Your task to perform on an android device: stop showing notifications on the lock screen Image 0: 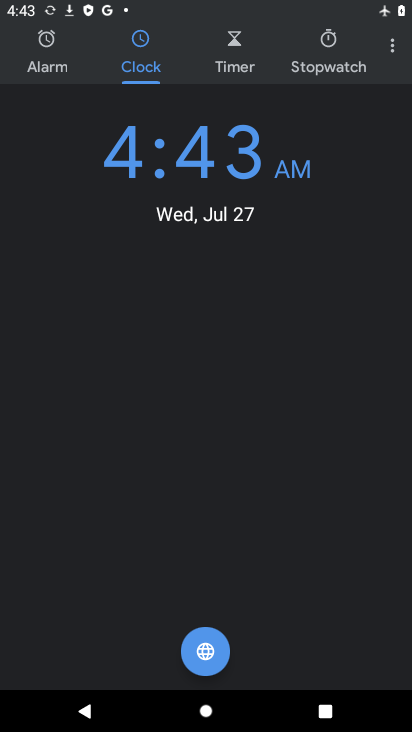
Step 0: press home button
Your task to perform on an android device: stop showing notifications on the lock screen Image 1: 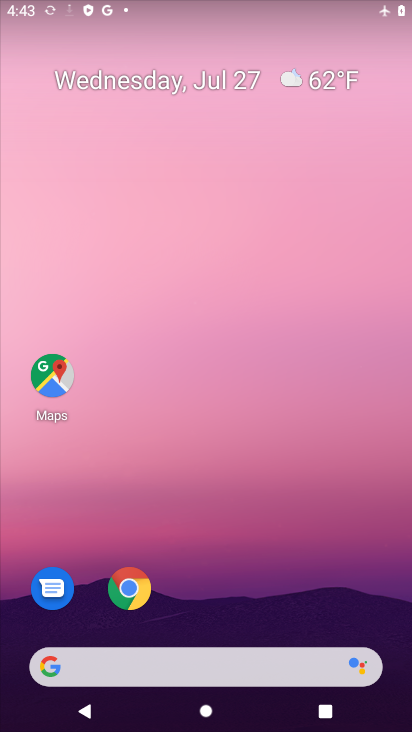
Step 1: drag from (186, 343) to (214, 163)
Your task to perform on an android device: stop showing notifications on the lock screen Image 2: 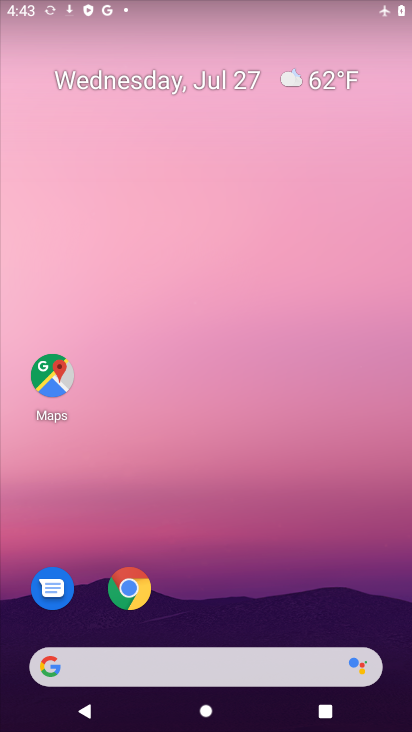
Step 2: drag from (208, 391) to (237, 150)
Your task to perform on an android device: stop showing notifications on the lock screen Image 3: 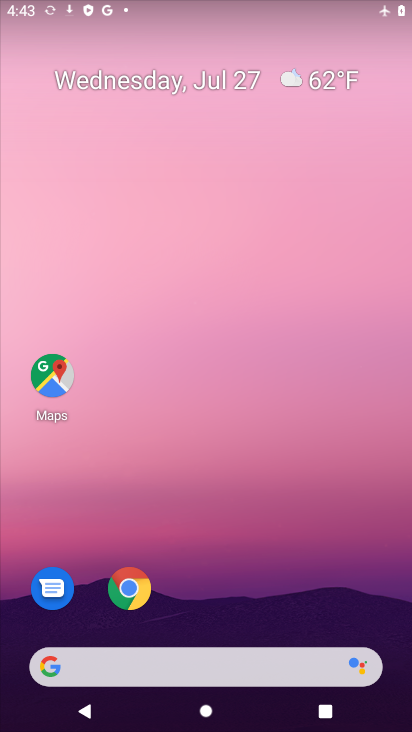
Step 3: drag from (204, 442) to (204, 85)
Your task to perform on an android device: stop showing notifications on the lock screen Image 4: 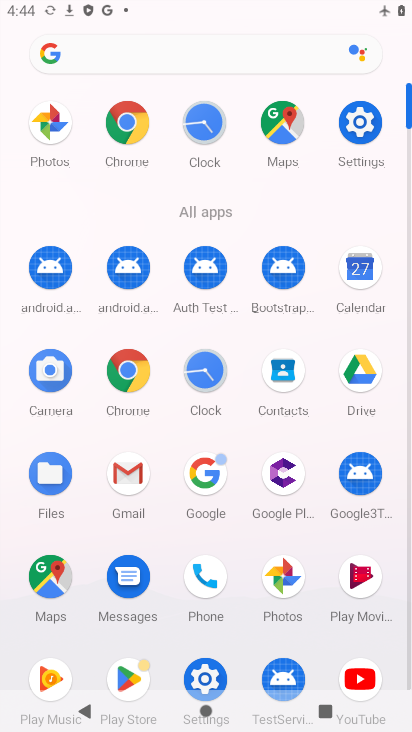
Step 4: click (357, 124)
Your task to perform on an android device: stop showing notifications on the lock screen Image 5: 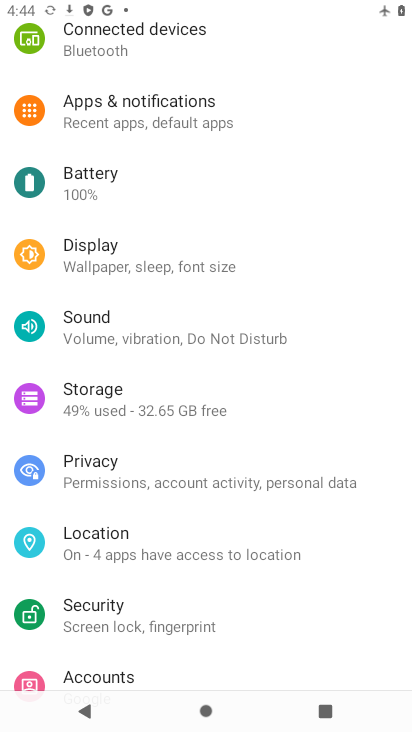
Step 5: click (212, 535)
Your task to perform on an android device: stop showing notifications on the lock screen Image 6: 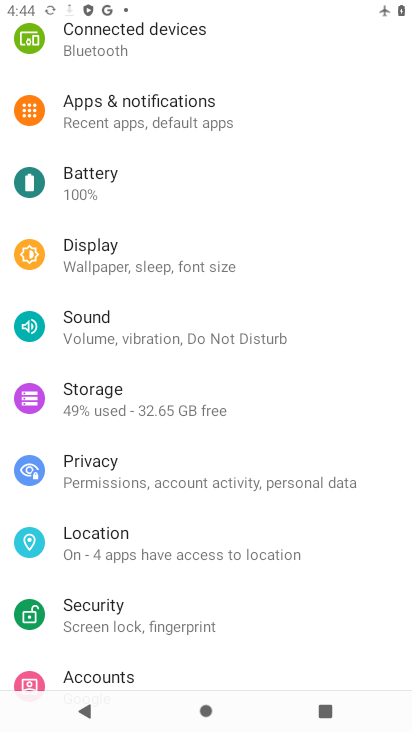
Step 6: click (161, 99)
Your task to perform on an android device: stop showing notifications on the lock screen Image 7: 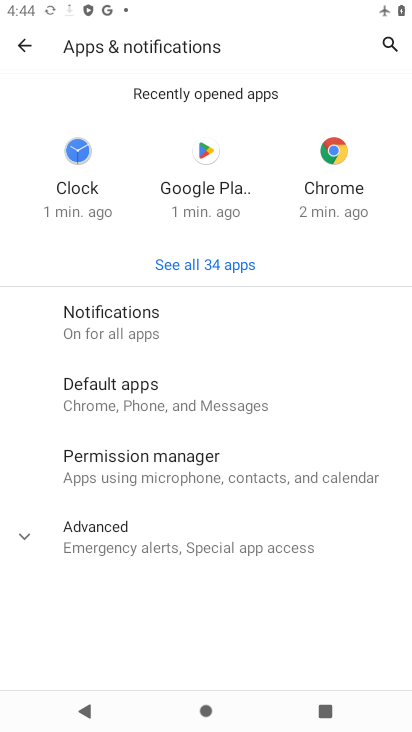
Step 7: click (95, 310)
Your task to perform on an android device: stop showing notifications on the lock screen Image 8: 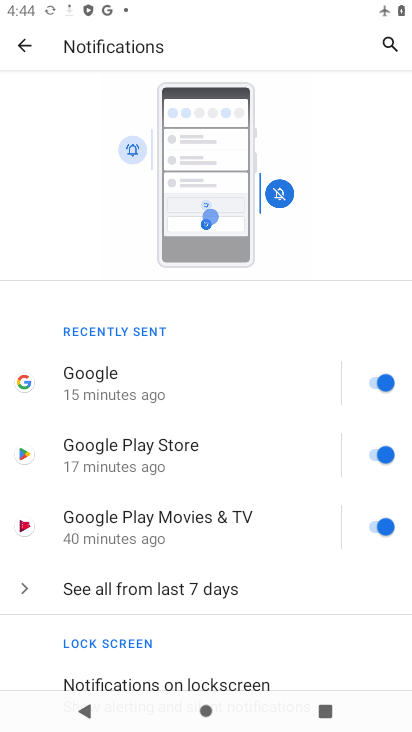
Step 8: click (213, 679)
Your task to perform on an android device: stop showing notifications on the lock screen Image 9: 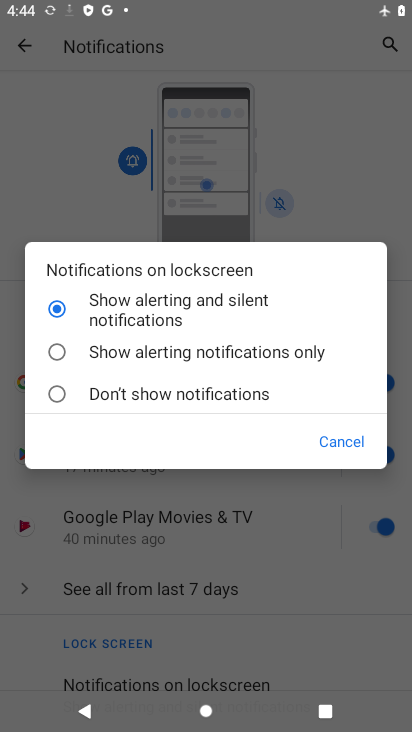
Step 9: click (58, 395)
Your task to perform on an android device: stop showing notifications on the lock screen Image 10: 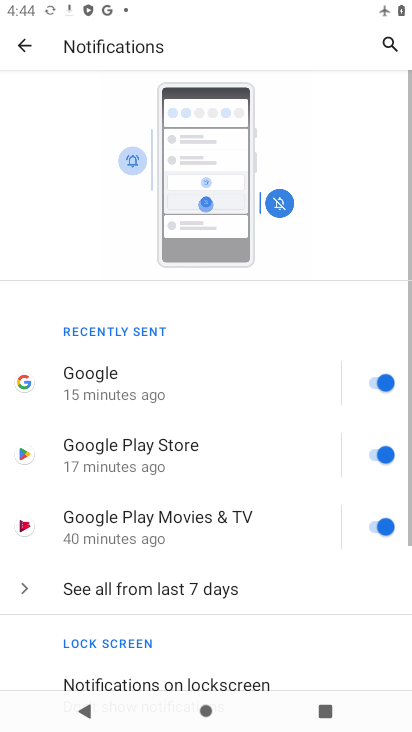
Step 10: task complete